Your task to perform on an android device: Turn on the flashlight Image 0: 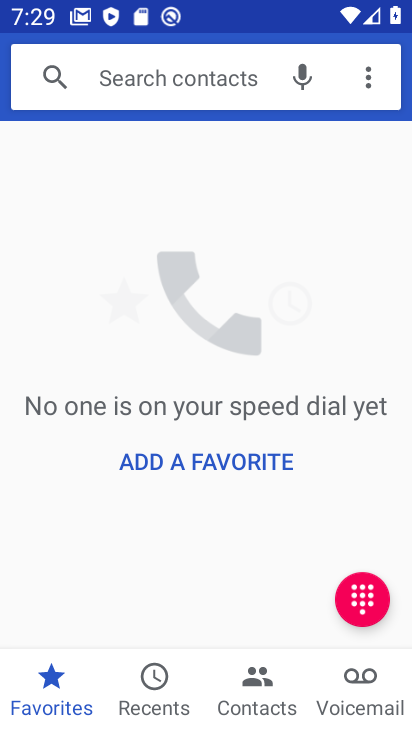
Step 0: press home button
Your task to perform on an android device: Turn on the flashlight Image 1: 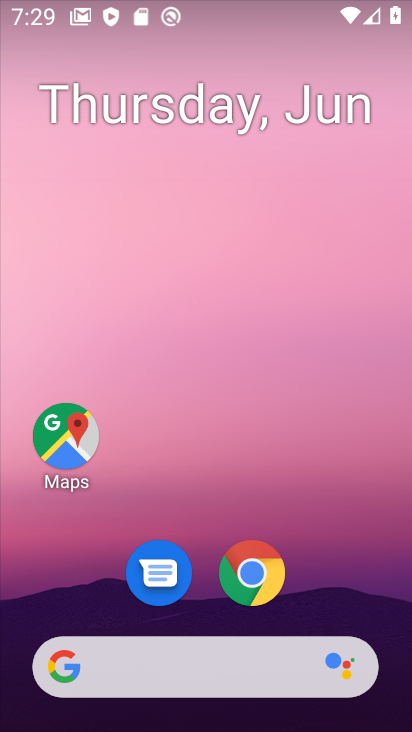
Step 1: drag from (314, 584) to (317, 266)
Your task to perform on an android device: Turn on the flashlight Image 2: 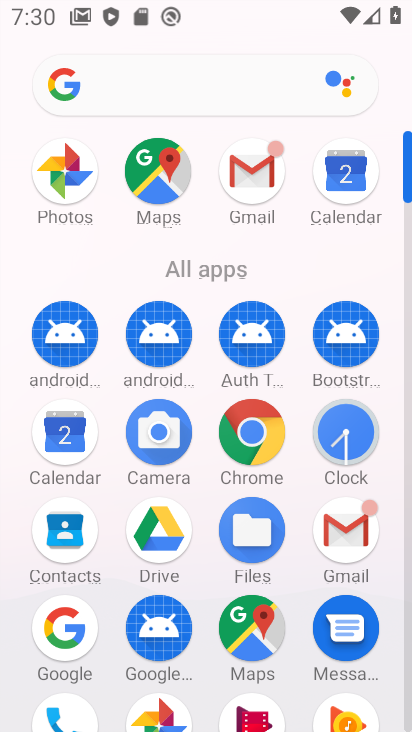
Step 2: drag from (107, 648) to (105, 256)
Your task to perform on an android device: Turn on the flashlight Image 3: 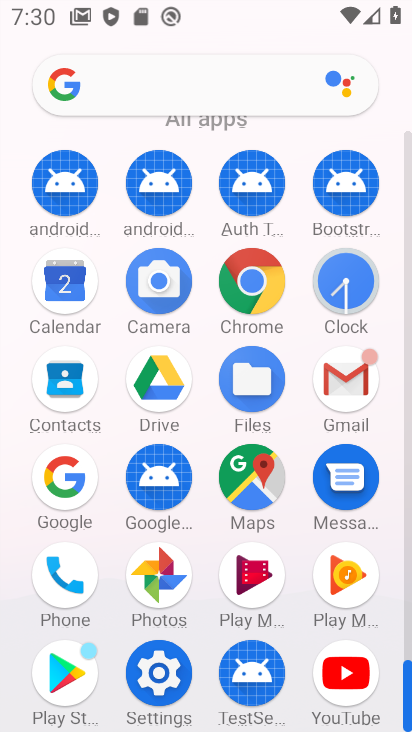
Step 3: click (163, 674)
Your task to perform on an android device: Turn on the flashlight Image 4: 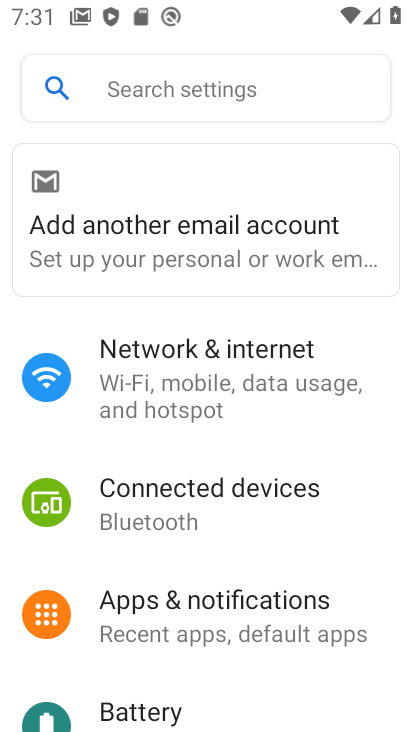
Step 4: task complete